Your task to perform on an android device: Open maps Image 0: 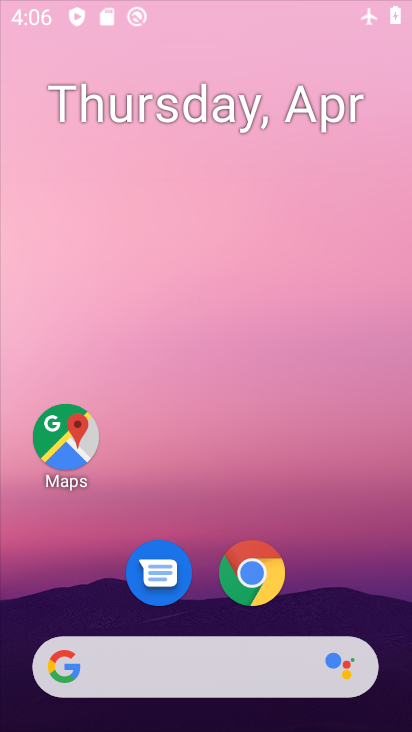
Step 0: drag from (324, 603) to (255, 75)
Your task to perform on an android device: Open maps Image 1: 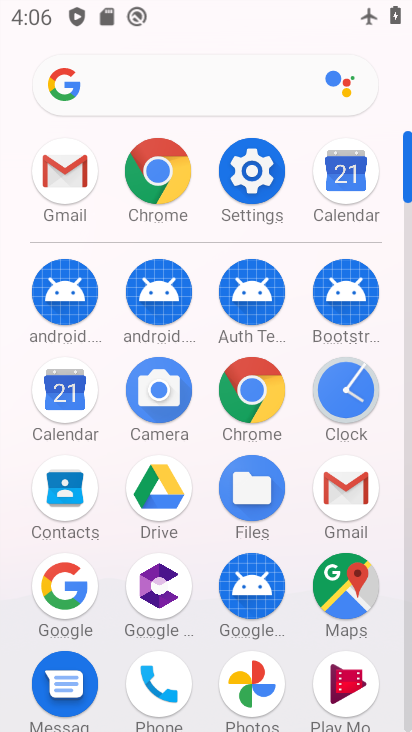
Step 1: click (357, 585)
Your task to perform on an android device: Open maps Image 2: 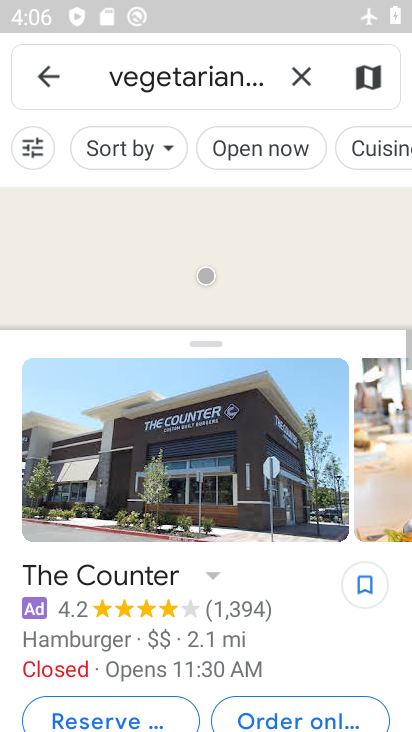
Step 2: click (302, 76)
Your task to perform on an android device: Open maps Image 3: 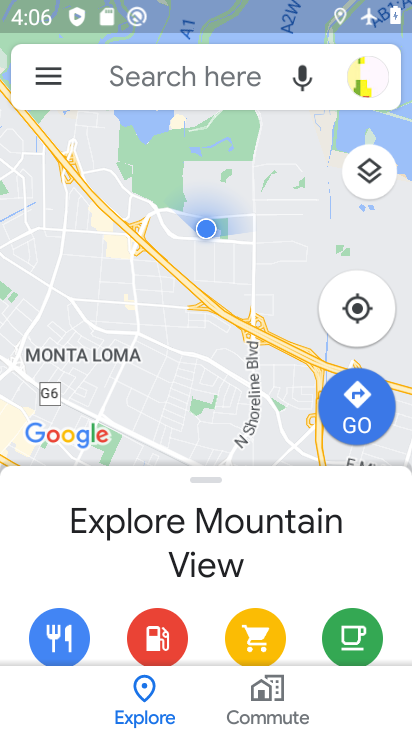
Step 3: task complete